Your task to perform on an android device: Open calendar and show me the second week of next month Image 0: 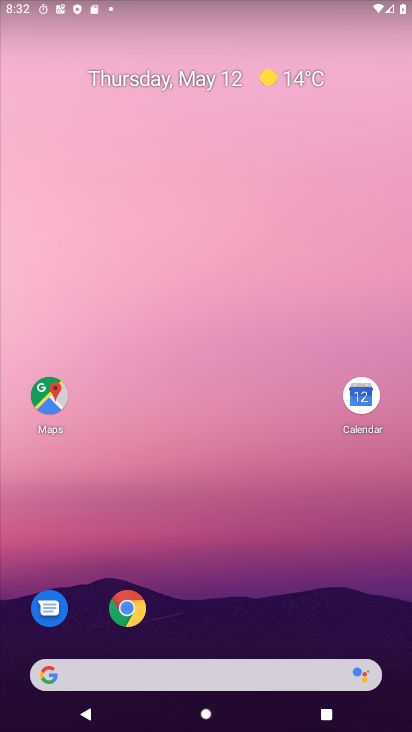
Step 0: drag from (272, 532) to (273, 267)
Your task to perform on an android device: Open calendar and show me the second week of next month Image 1: 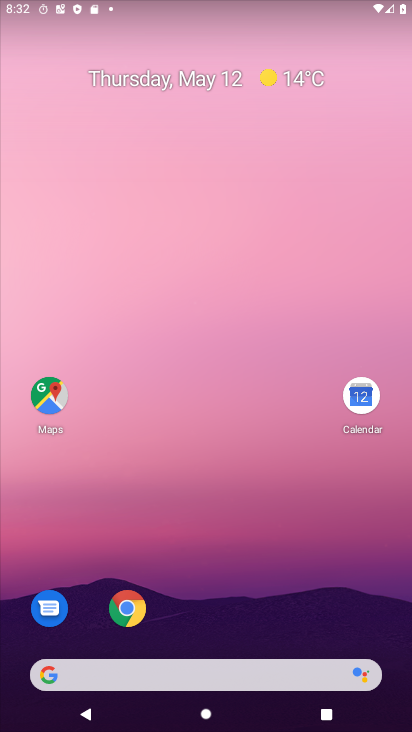
Step 1: drag from (307, 533) to (206, 159)
Your task to perform on an android device: Open calendar and show me the second week of next month Image 2: 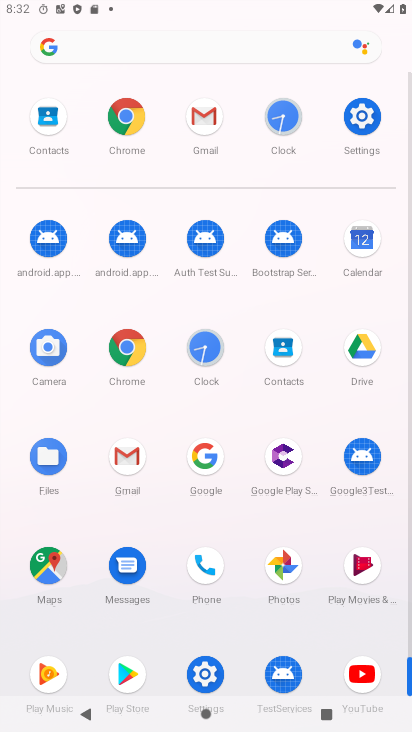
Step 2: click (366, 247)
Your task to perform on an android device: Open calendar and show me the second week of next month Image 3: 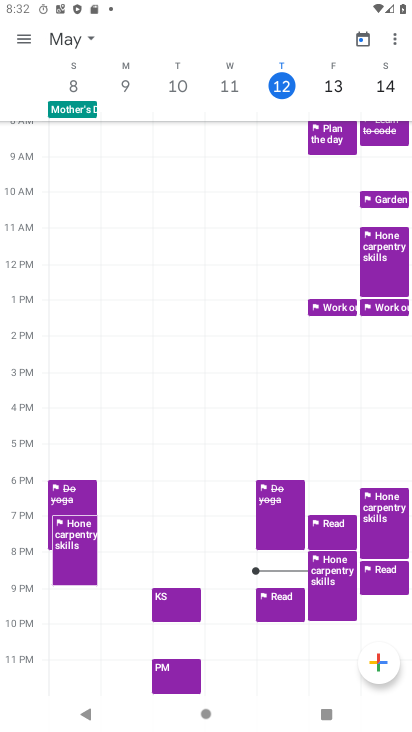
Step 3: click (18, 37)
Your task to perform on an android device: Open calendar and show me the second week of next month Image 4: 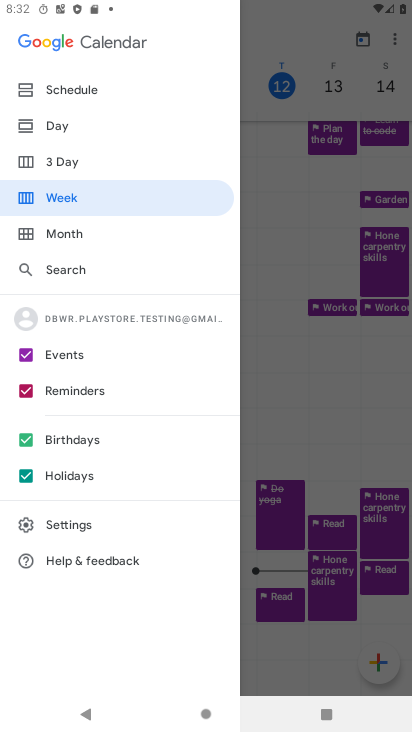
Step 4: click (122, 234)
Your task to perform on an android device: Open calendar and show me the second week of next month Image 5: 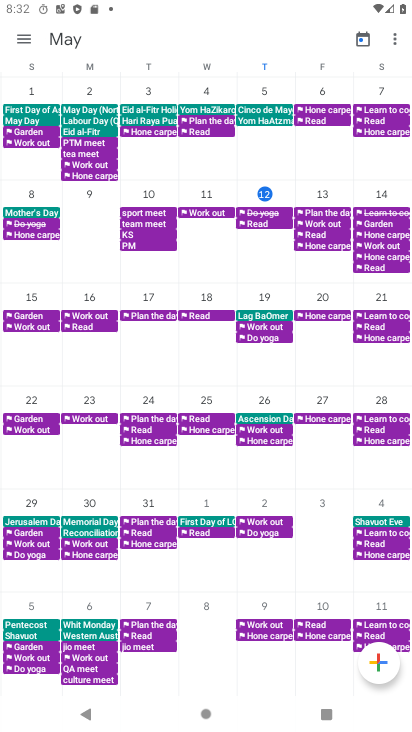
Step 5: task complete